Your task to perform on an android device: What's the price of the 1000-Watt EGO Power+ Snow Blower? Image 0: 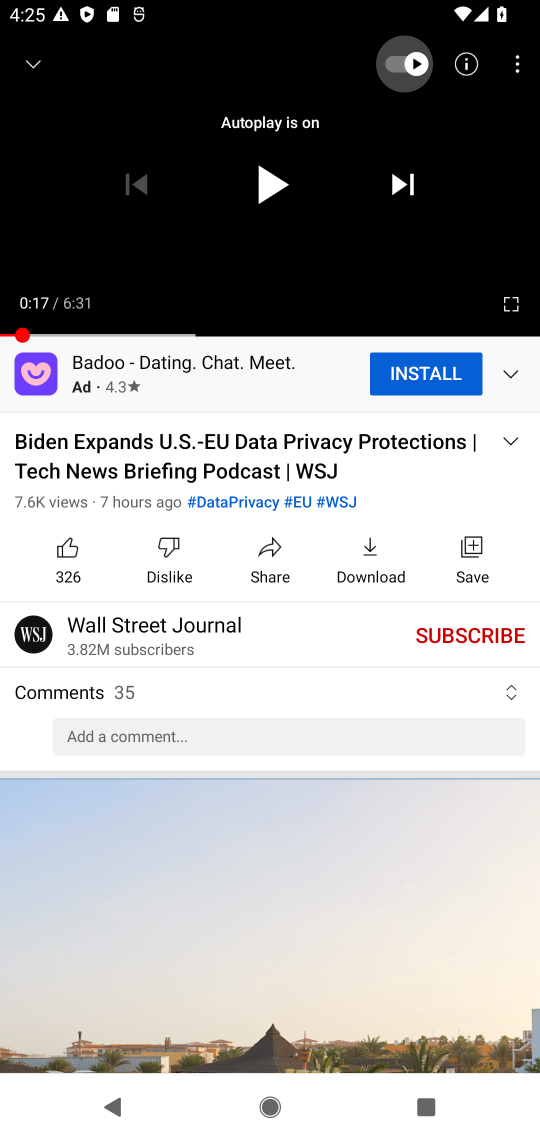
Step 0: press home button
Your task to perform on an android device: What's the price of the 1000-Watt EGO Power+ Snow Blower? Image 1: 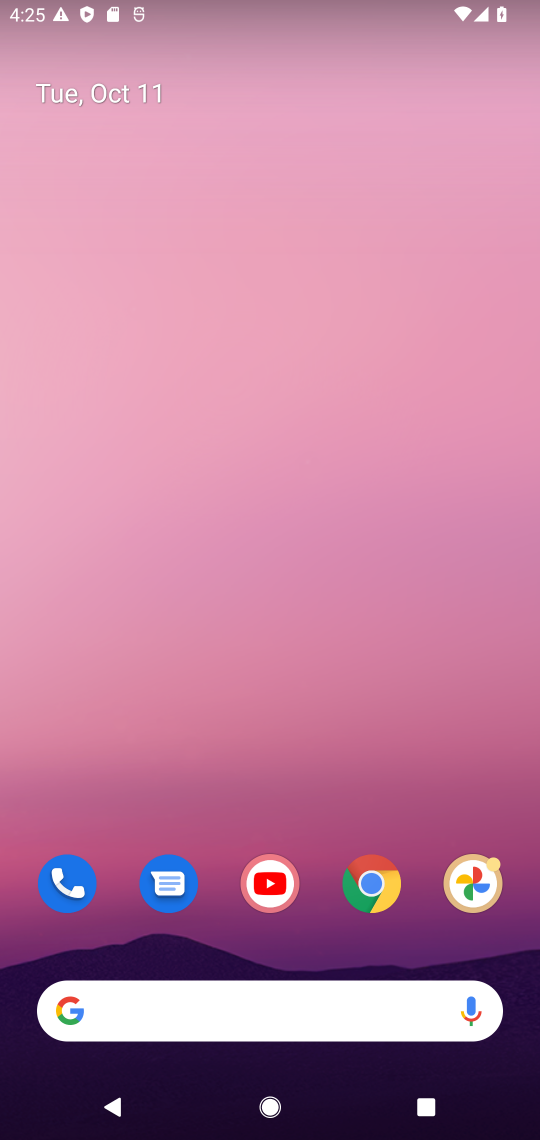
Step 1: drag from (295, 750) to (244, 6)
Your task to perform on an android device: What's the price of the 1000-Watt EGO Power+ Snow Blower? Image 2: 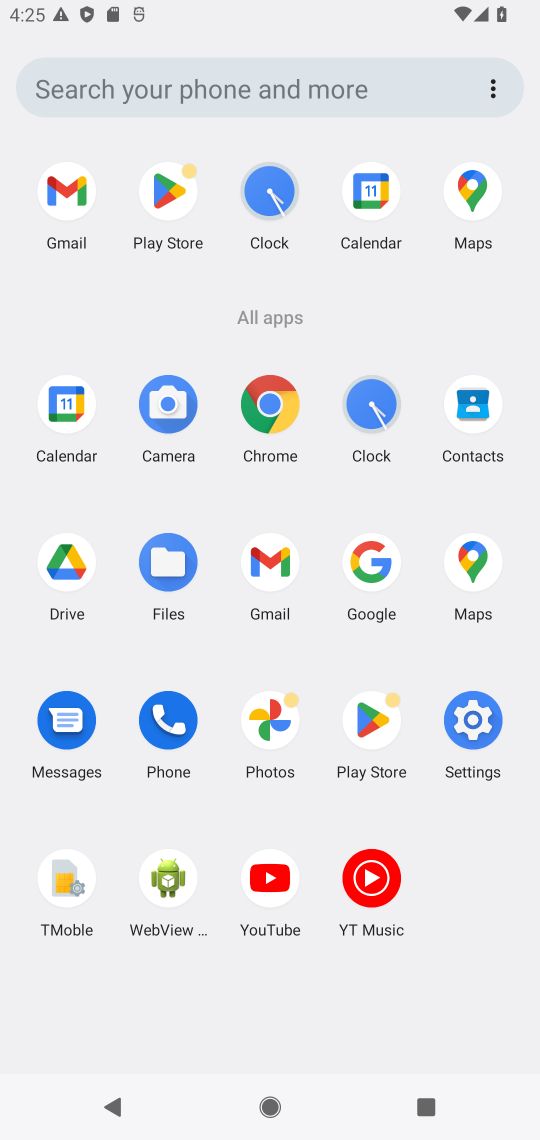
Step 2: click (265, 393)
Your task to perform on an android device: What's the price of the 1000-Watt EGO Power+ Snow Blower? Image 3: 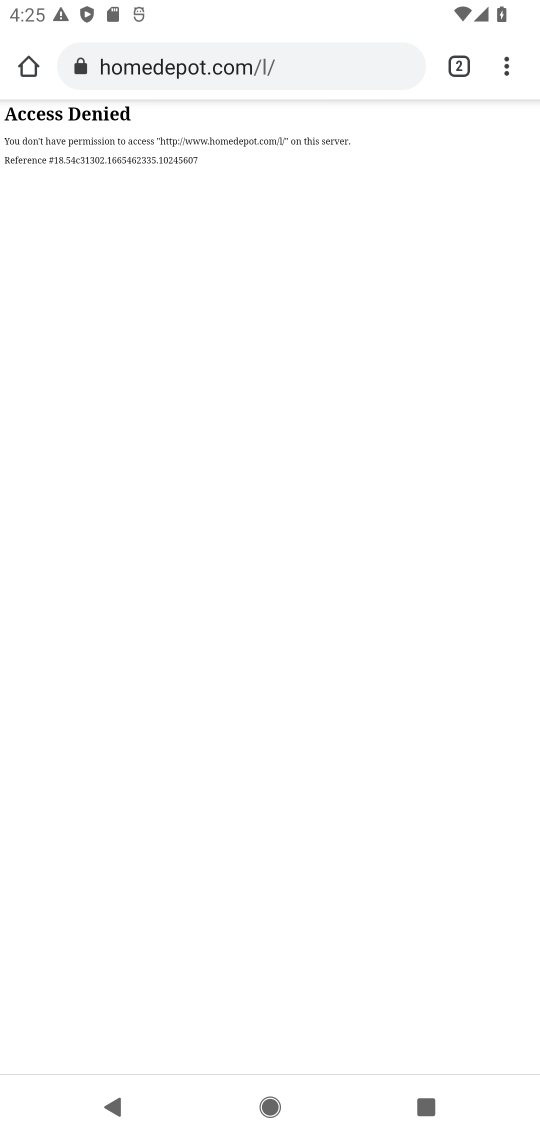
Step 3: click (246, 65)
Your task to perform on an android device: What's the price of the 1000-Watt EGO Power+ Snow Blower? Image 4: 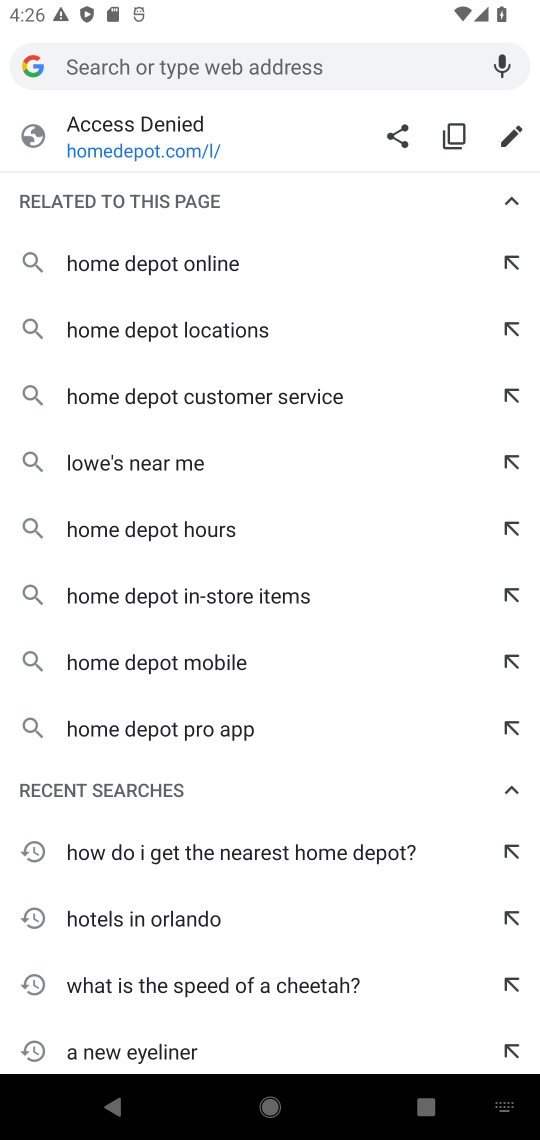
Step 4: type "What's the price of the 1000-Watt EGO Power"
Your task to perform on an android device: What's the price of the 1000-Watt EGO Power+ Snow Blower? Image 5: 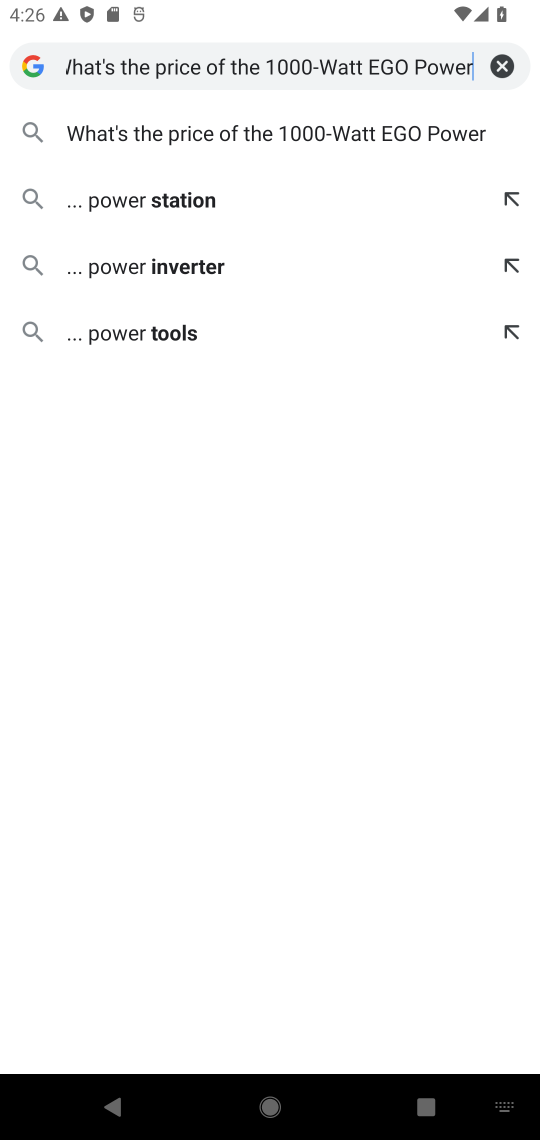
Step 5: type "+ Snow Blower?"
Your task to perform on an android device: What's the price of the 1000-Watt EGO Power+ Snow Blower? Image 6: 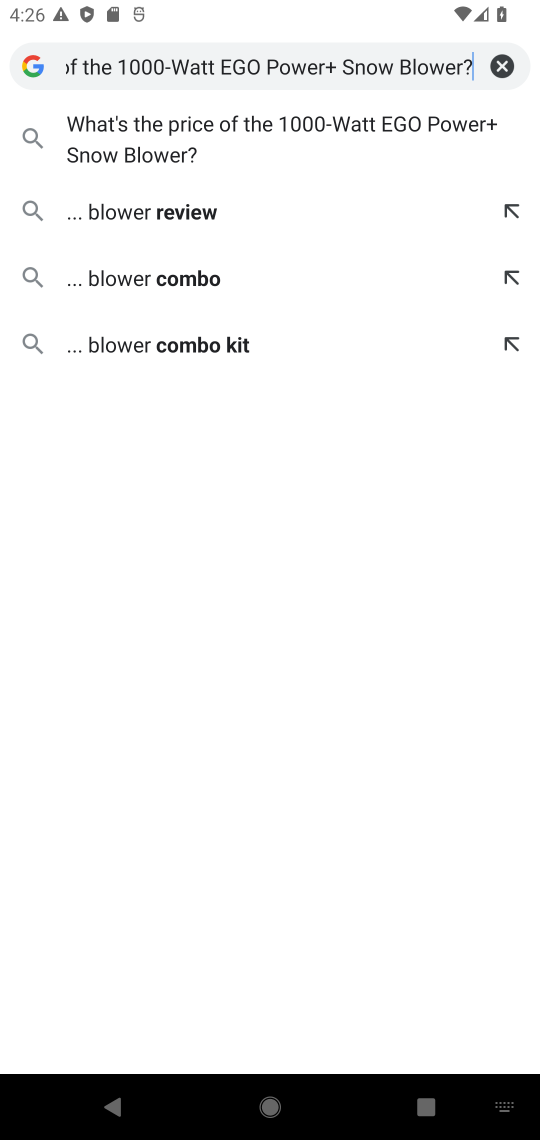
Step 6: press enter
Your task to perform on an android device: What's the price of the 1000-Watt EGO Power+ Snow Blower? Image 7: 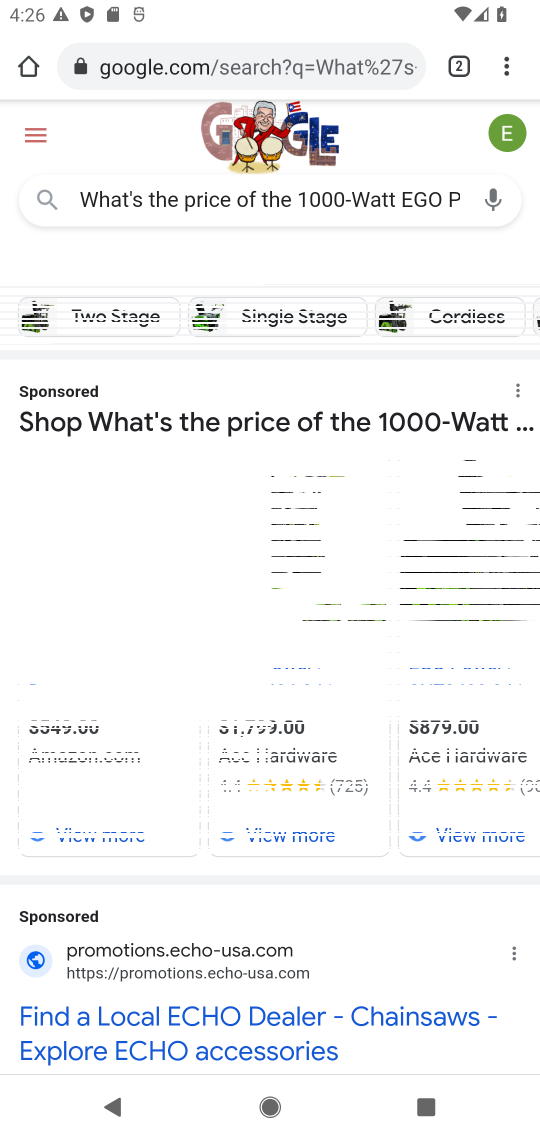
Step 7: task complete